Your task to perform on an android device: Go to CNN.com Image 0: 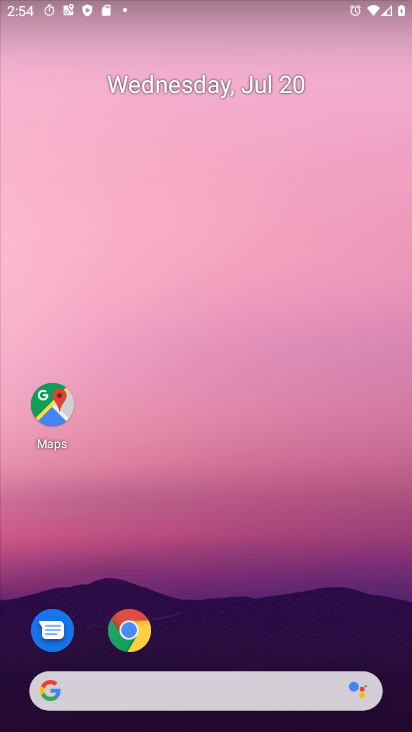
Step 0: press home button
Your task to perform on an android device: Go to CNN.com Image 1: 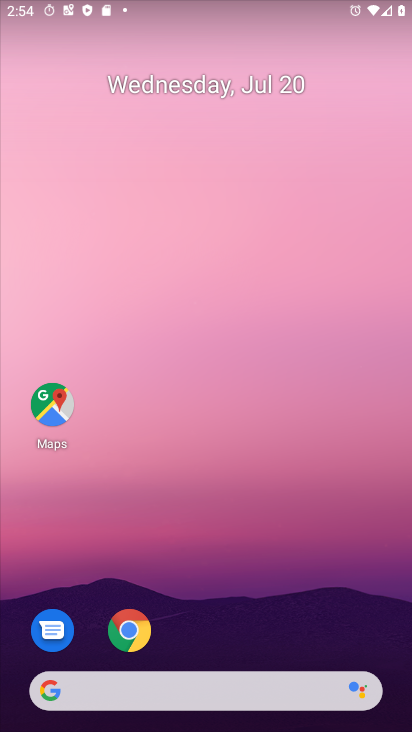
Step 1: click (127, 630)
Your task to perform on an android device: Go to CNN.com Image 2: 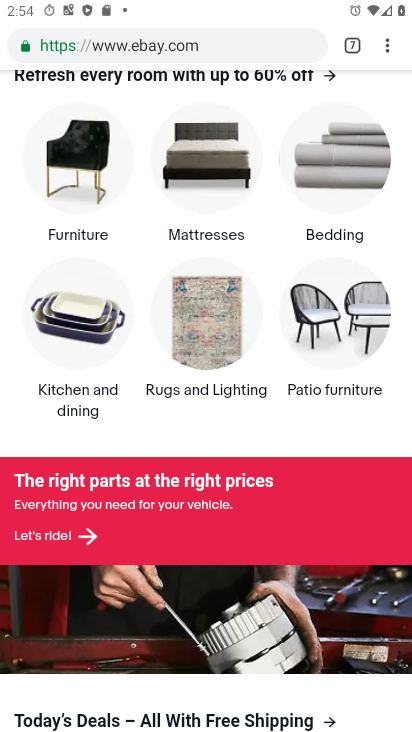
Step 2: drag from (383, 49) to (300, 90)
Your task to perform on an android device: Go to CNN.com Image 3: 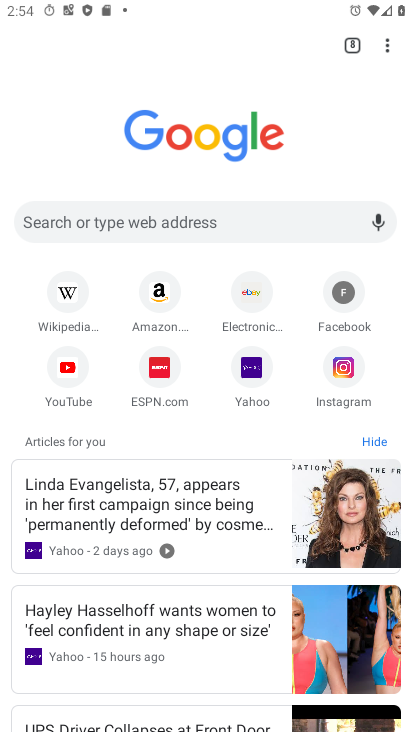
Step 3: click (157, 211)
Your task to perform on an android device: Go to CNN.com Image 4: 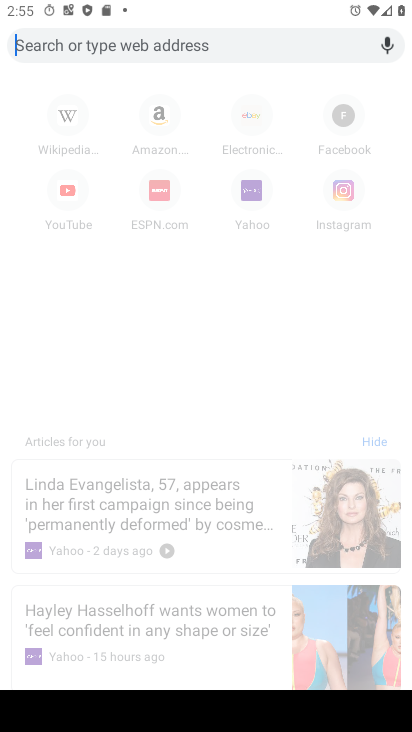
Step 4: type "cnn.com"
Your task to perform on an android device: Go to CNN.com Image 5: 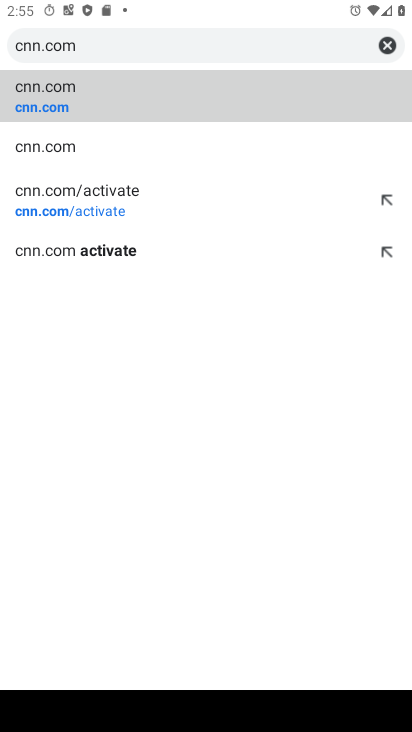
Step 5: click (179, 94)
Your task to perform on an android device: Go to CNN.com Image 6: 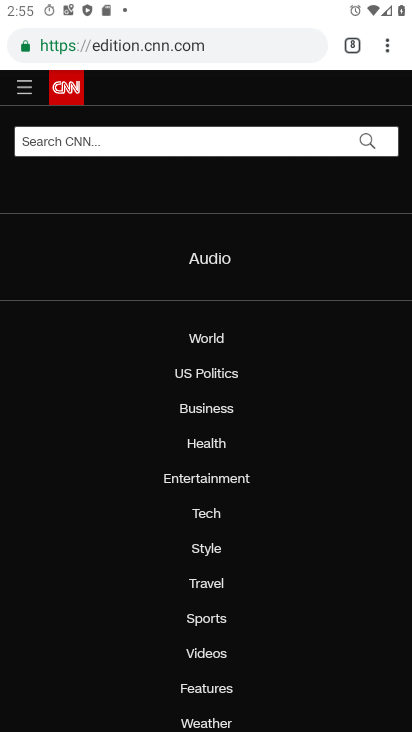
Step 6: task complete